Your task to perform on an android device: turn off airplane mode Image 0: 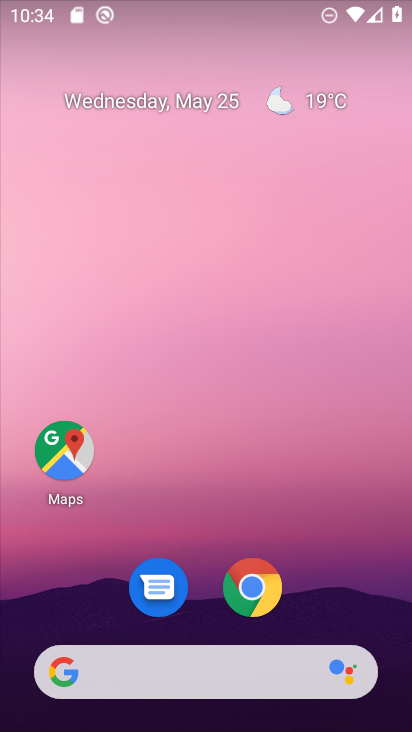
Step 0: drag from (385, 631) to (331, 31)
Your task to perform on an android device: turn off airplane mode Image 1: 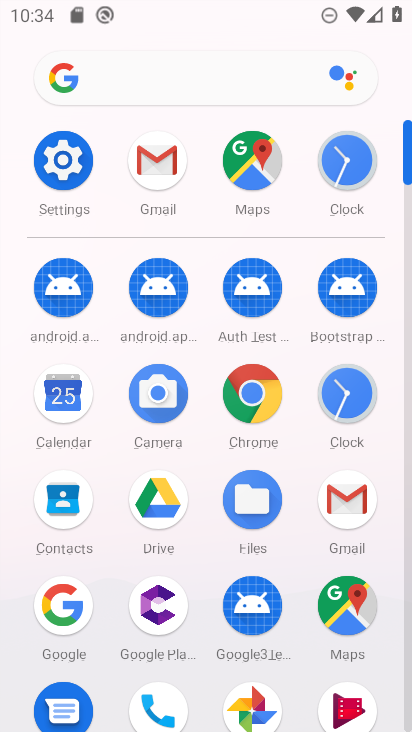
Step 1: click (407, 711)
Your task to perform on an android device: turn off airplane mode Image 2: 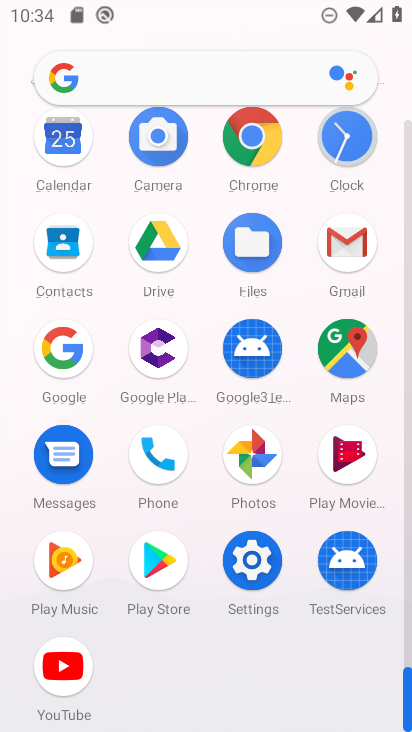
Step 2: click (253, 559)
Your task to perform on an android device: turn off airplane mode Image 3: 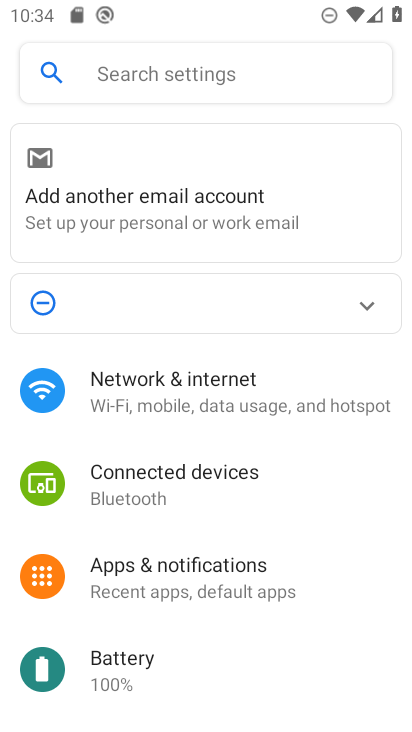
Step 3: click (166, 370)
Your task to perform on an android device: turn off airplane mode Image 4: 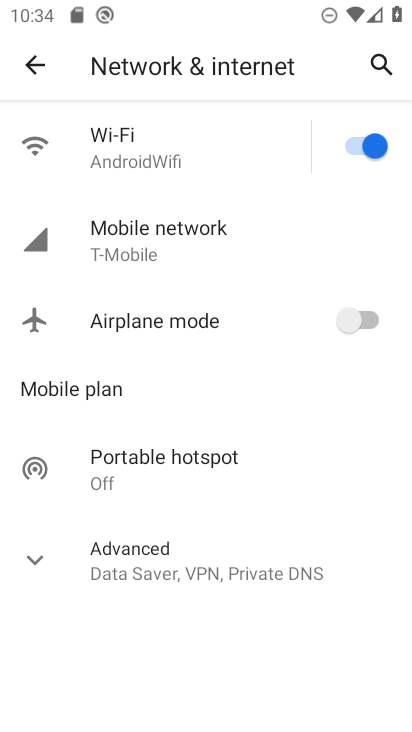
Step 4: task complete